Your task to perform on an android device: Open Android settings Image 0: 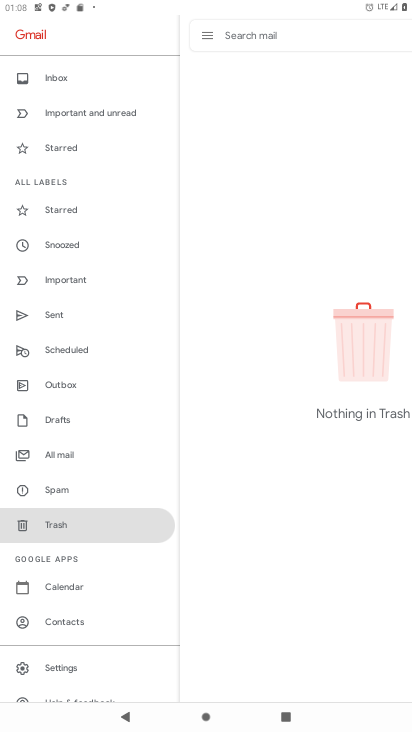
Step 0: press home button
Your task to perform on an android device: Open Android settings Image 1: 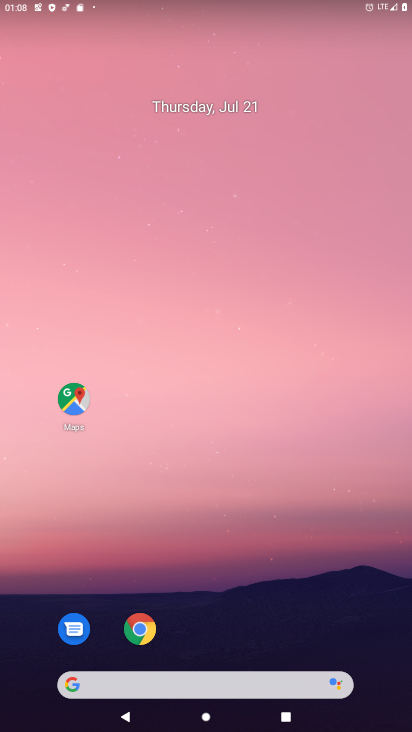
Step 1: drag from (313, 603) to (264, 88)
Your task to perform on an android device: Open Android settings Image 2: 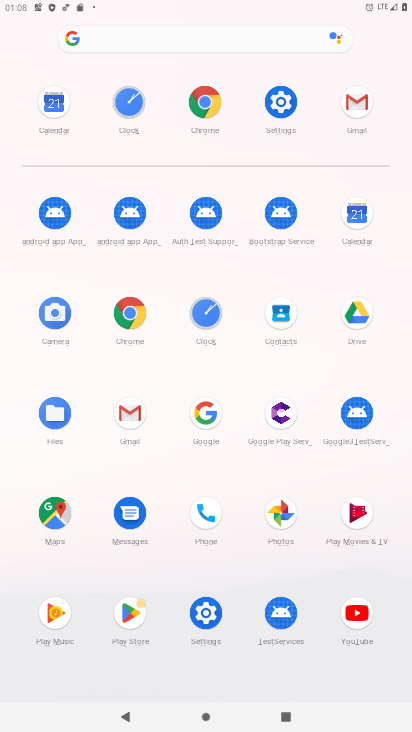
Step 2: click (266, 101)
Your task to perform on an android device: Open Android settings Image 3: 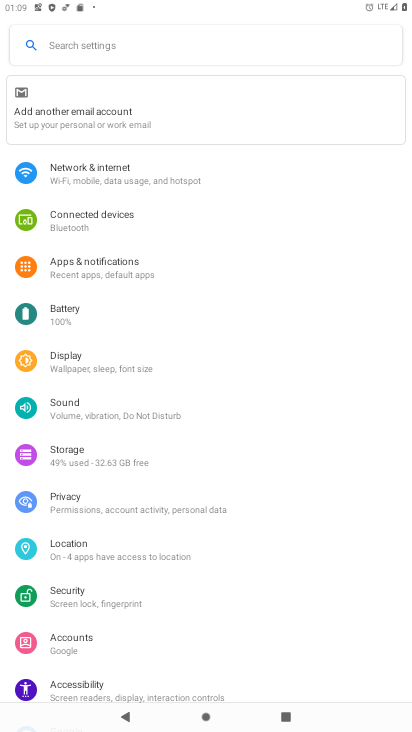
Step 3: task complete